Your task to perform on an android device: show emergency info Image 0: 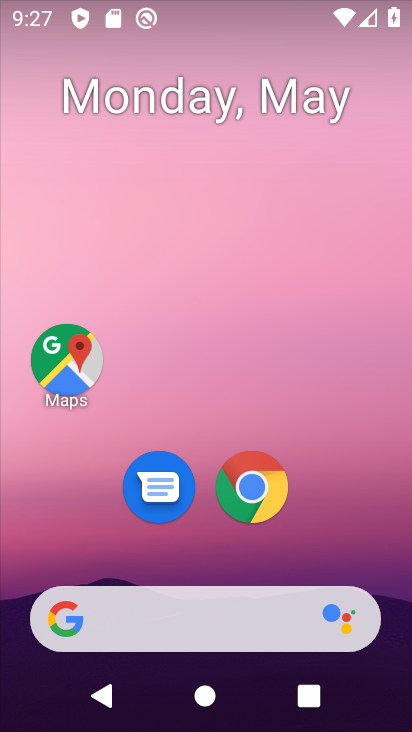
Step 0: drag from (222, 554) to (297, 133)
Your task to perform on an android device: show emergency info Image 1: 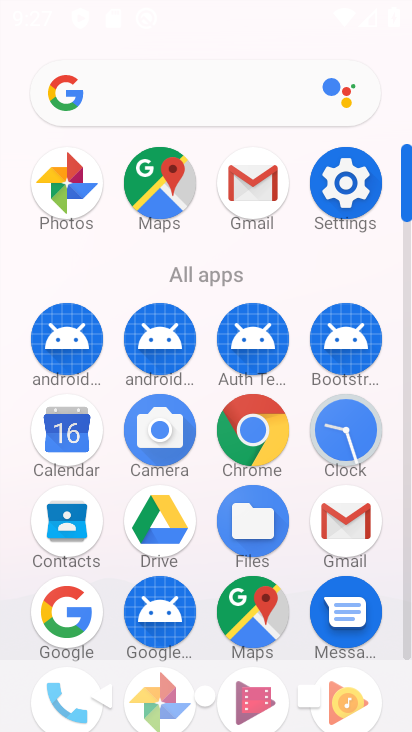
Step 1: click (352, 180)
Your task to perform on an android device: show emergency info Image 2: 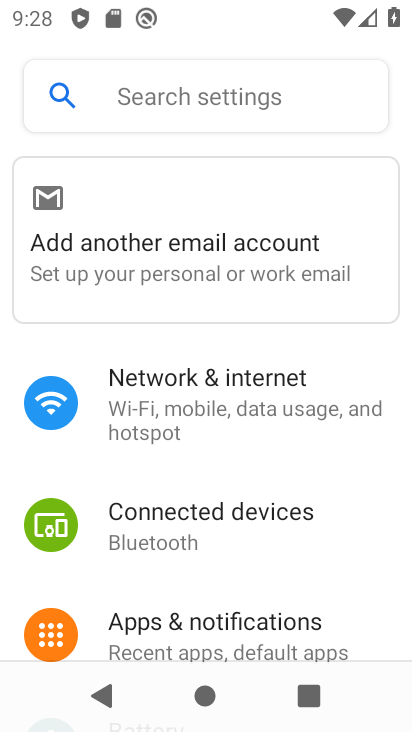
Step 2: drag from (210, 597) to (253, 194)
Your task to perform on an android device: show emergency info Image 3: 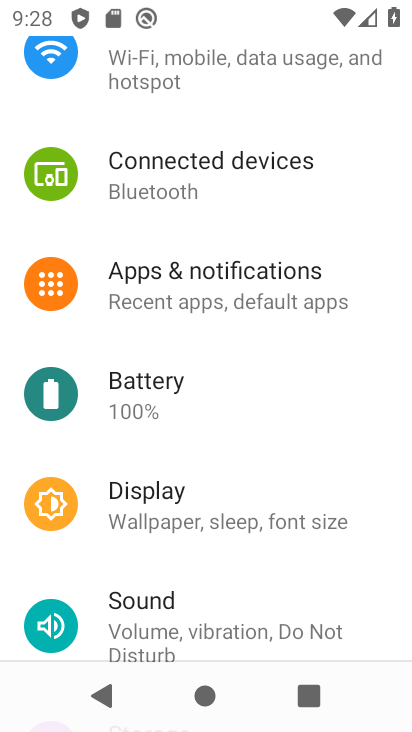
Step 3: drag from (217, 610) to (298, 273)
Your task to perform on an android device: show emergency info Image 4: 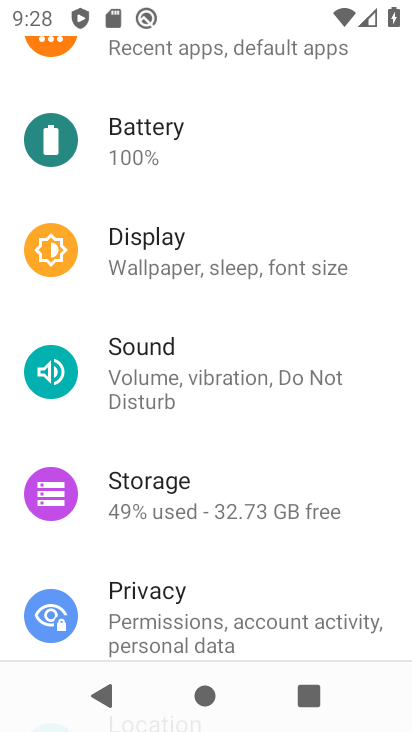
Step 4: drag from (280, 655) to (344, 197)
Your task to perform on an android device: show emergency info Image 5: 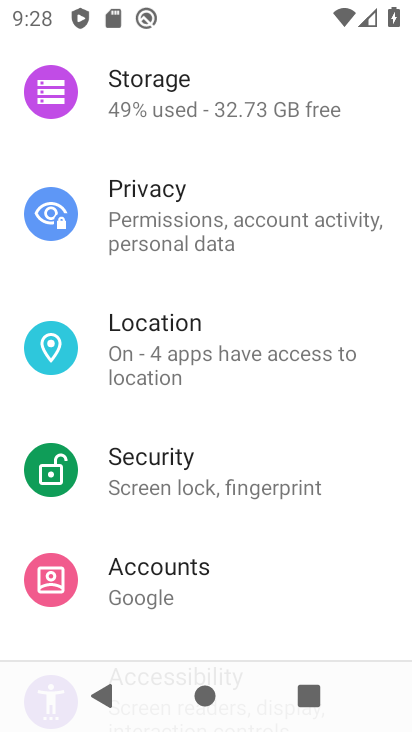
Step 5: drag from (223, 590) to (261, 252)
Your task to perform on an android device: show emergency info Image 6: 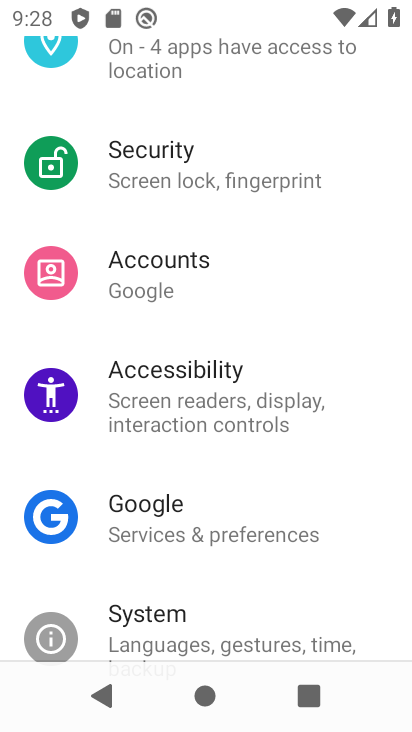
Step 6: drag from (187, 575) to (229, 298)
Your task to perform on an android device: show emergency info Image 7: 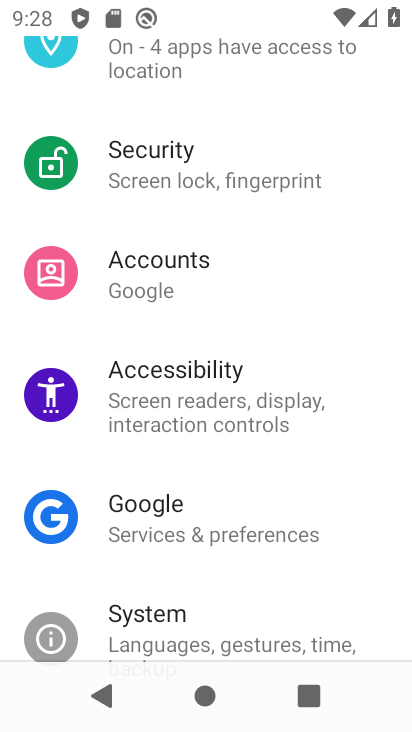
Step 7: drag from (183, 618) to (194, 236)
Your task to perform on an android device: show emergency info Image 8: 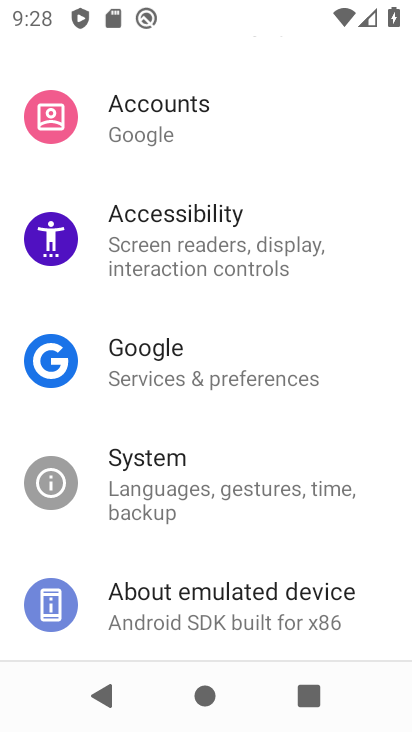
Step 8: click (182, 581)
Your task to perform on an android device: show emergency info Image 9: 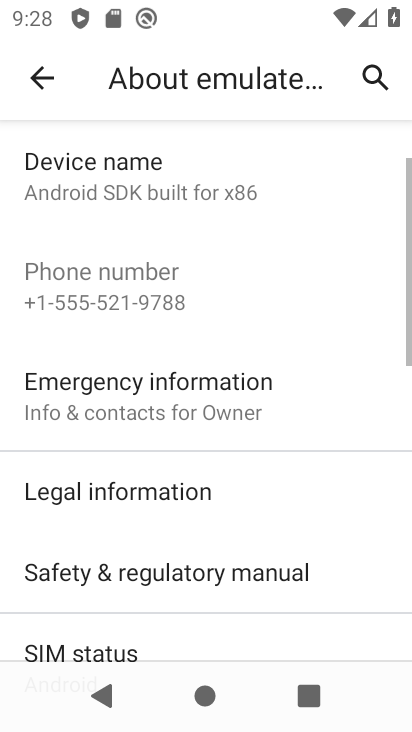
Step 9: click (221, 386)
Your task to perform on an android device: show emergency info Image 10: 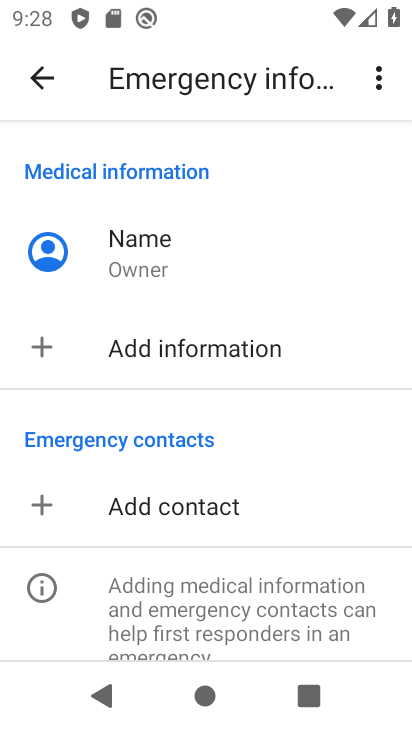
Step 10: task complete